Your task to perform on an android device: search for starred emails in the gmail app Image 0: 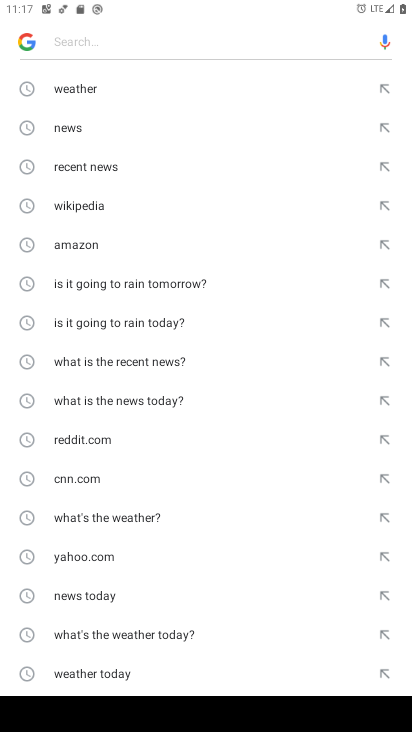
Step 0: press home button
Your task to perform on an android device: search for starred emails in the gmail app Image 1: 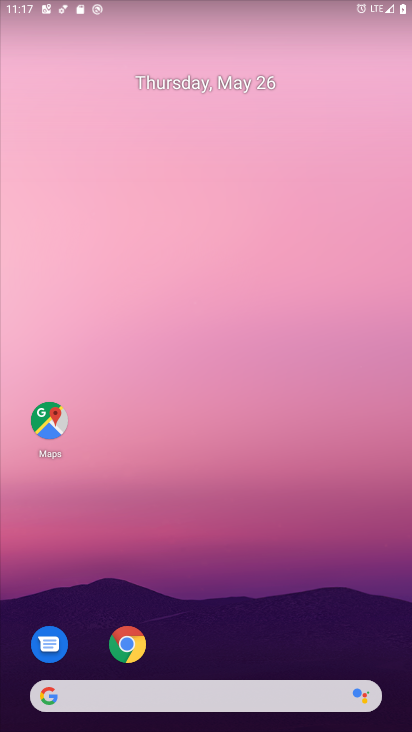
Step 1: drag from (358, 659) to (373, 206)
Your task to perform on an android device: search for starred emails in the gmail app Image 2: 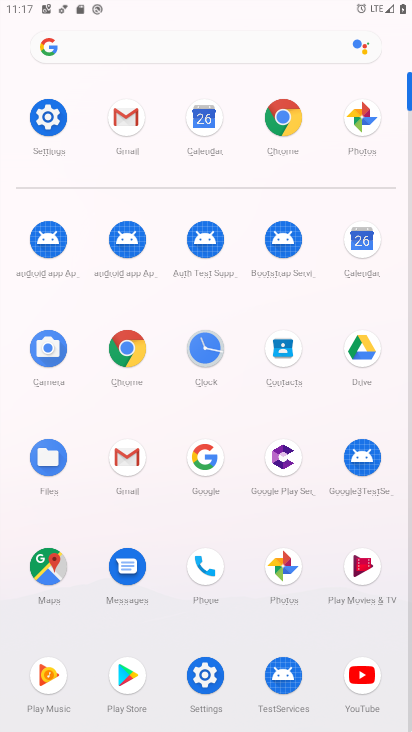
Step 2: click (127, 466)
Your task to perform on an android device: search for starred emails in the gmail app Image 3: 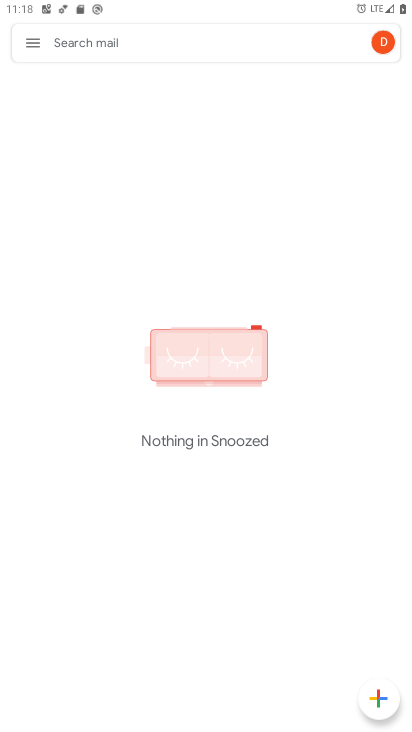
Step 3: click (33, 42)
Your task to perform on an android device: search for starred emails in the gmail app Image 4: 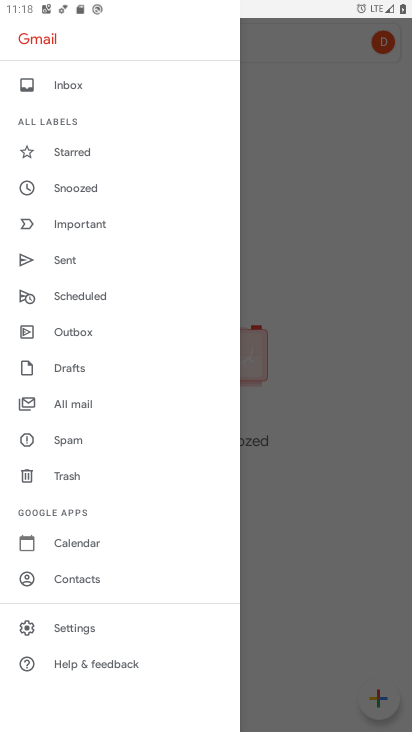
Step 4: click (100, 153)
Your task to perform on an android device: search for starred emails in the gmail app Image 5: 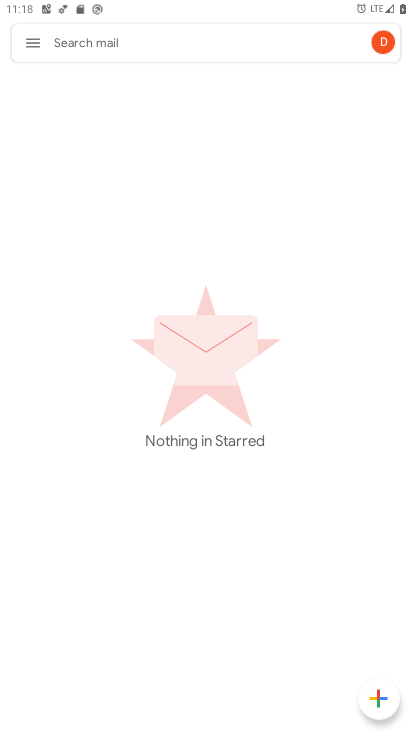
Step 5: task complete